Your task to perform on an android device: Toggle the flashlight Image 0: 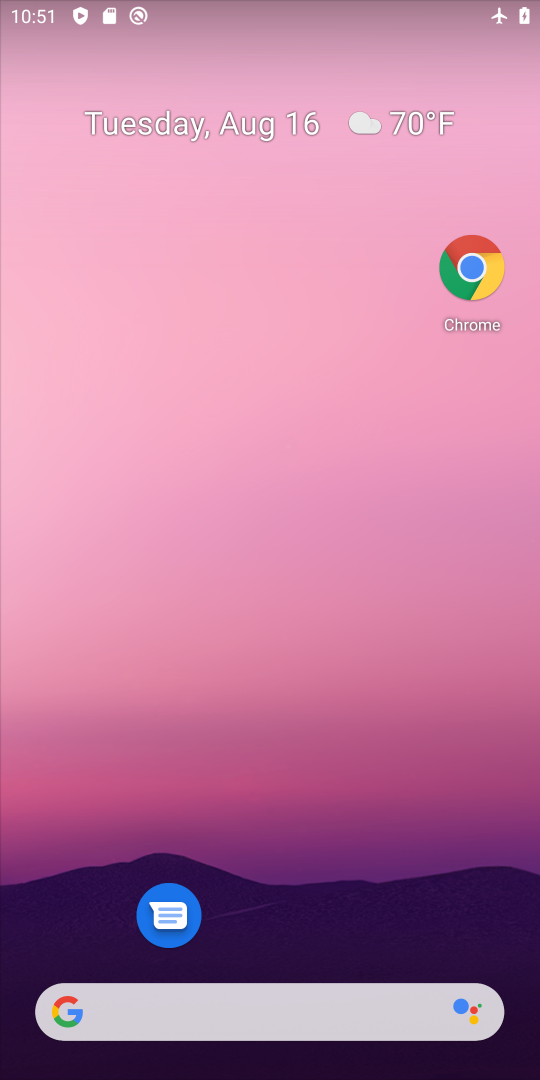
Step 0: drag from (212, 954) to (537, 641)
Your task to perform on an android device: Toggle the flashlight Image 1: 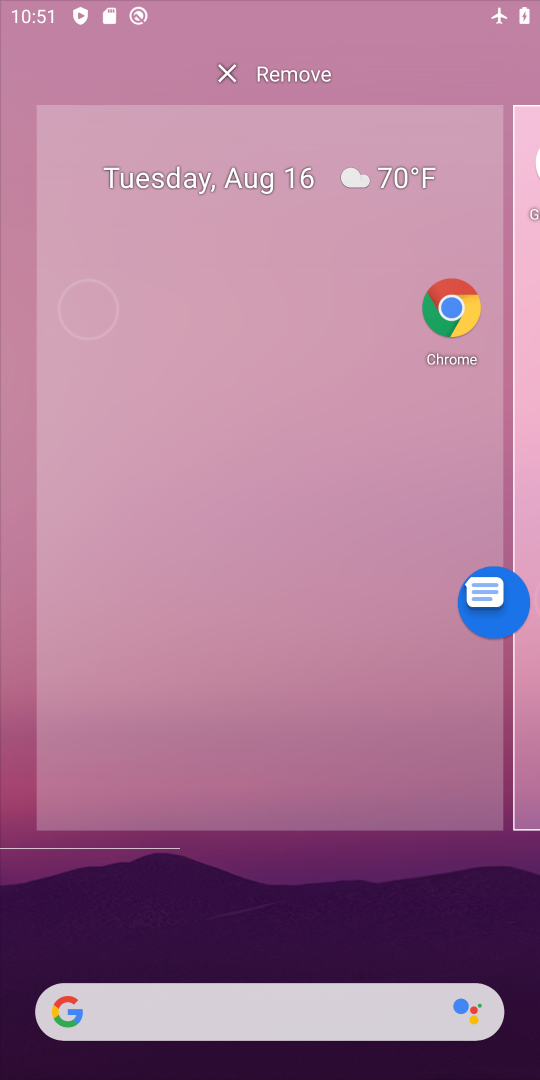
Step 1: click (312, 611)
Your task to perform on an android device: Toggle the flashlight Image 2: 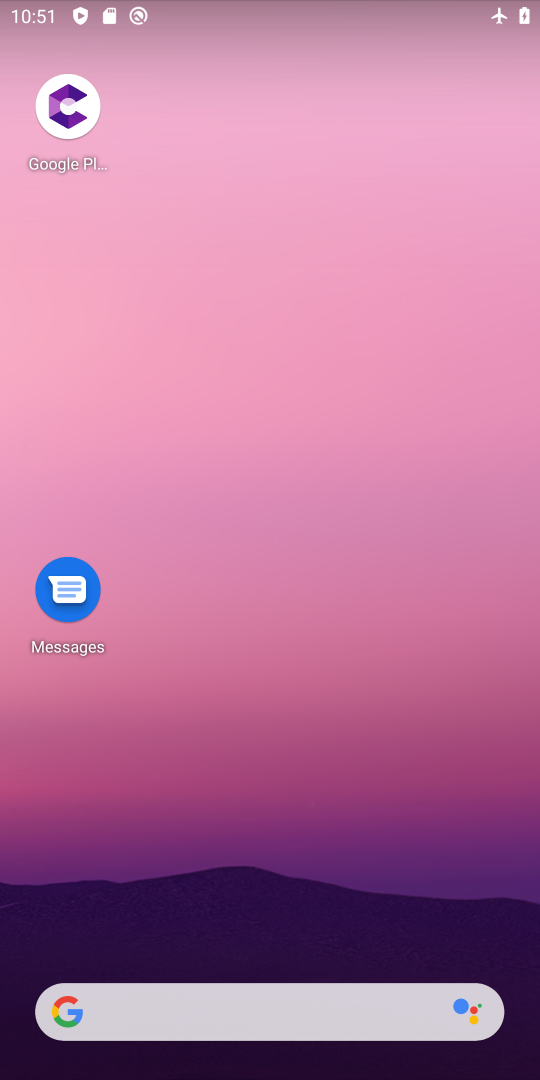
Step 2: drag from (313, 13) to (218, 1028)
Your task to perform on an android device: Toggle the flashlight Image 3: 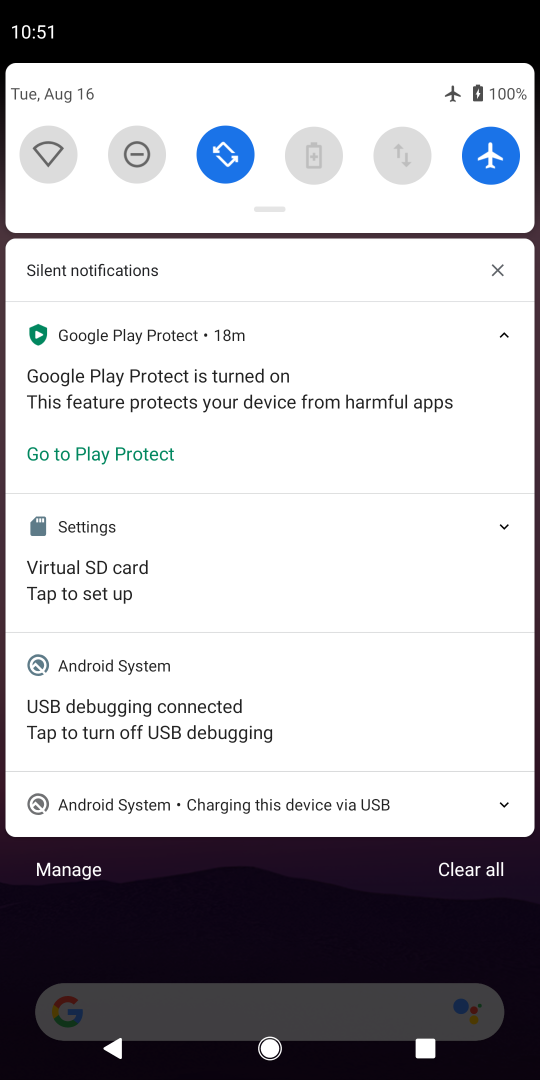
Step 3: drag from (333, 207) to (327, 921)
Your task to perform on an android device: Toggle the flashlight Image 4: 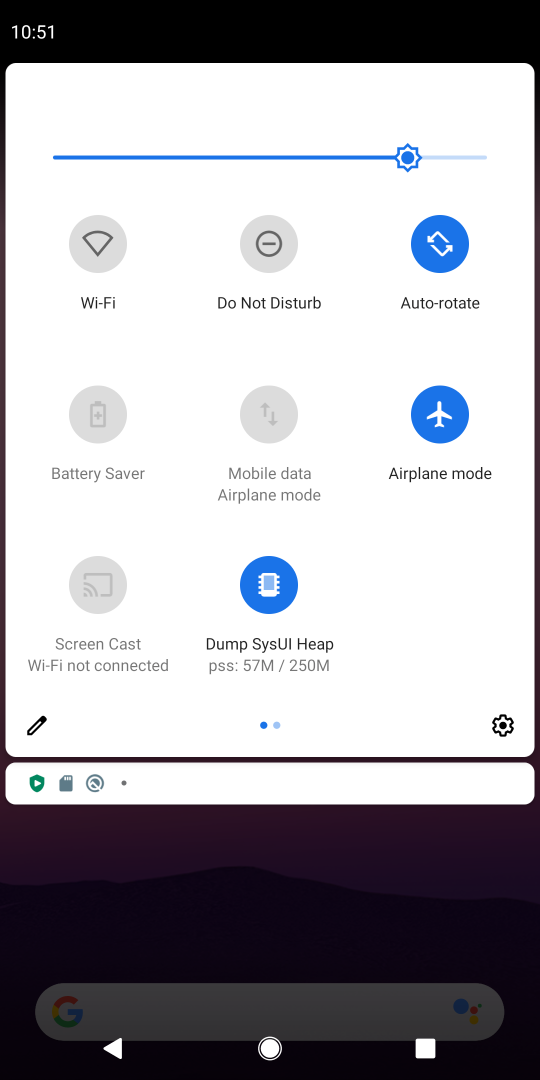
Step 4: drag from (152, 531) to (65, 390)
Your task to perform on an android device: Toggle the flashlight Image 5: 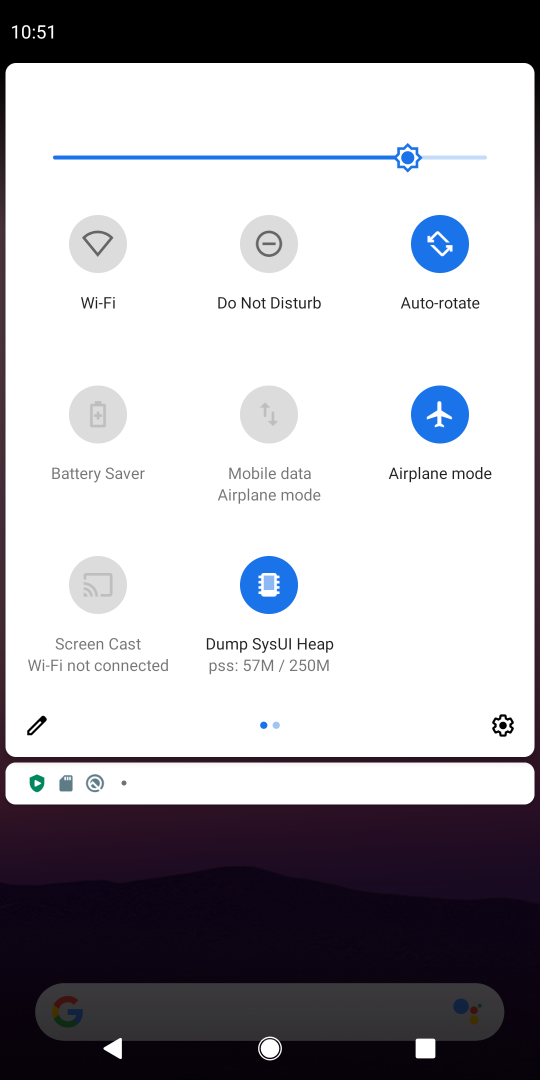
Step 5: click (278, 904)
Your task to perform on an android device: Toggle the flashlight Image 6: 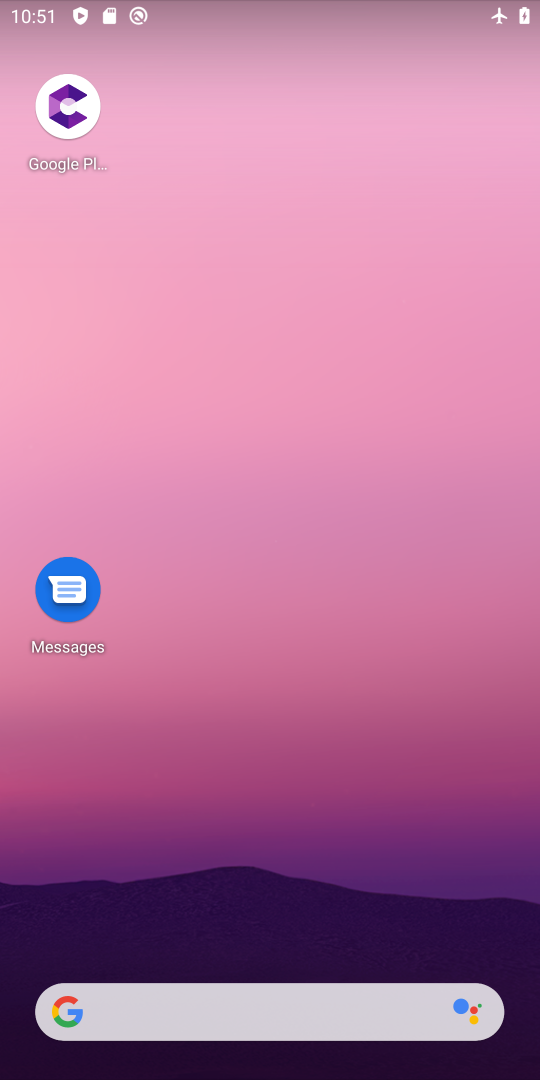
Step 6: drag from (278, 904) to (374, 5)
Your task to perform on an android device: Toggle the flashlight Image 7: 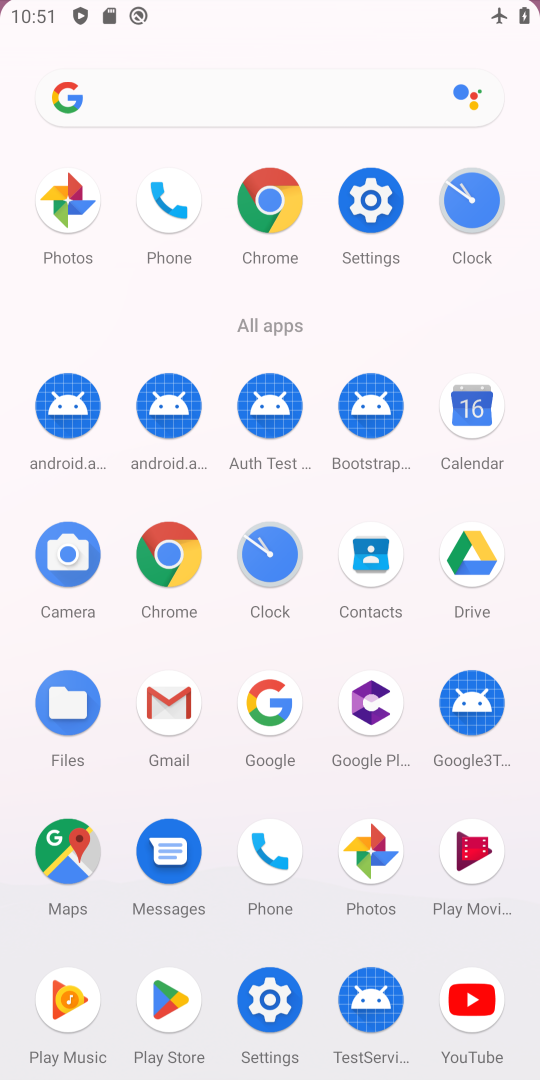
Step 7: click (395, 256)
Your task to perform on an android device: Toggle the flashlight Image 8: 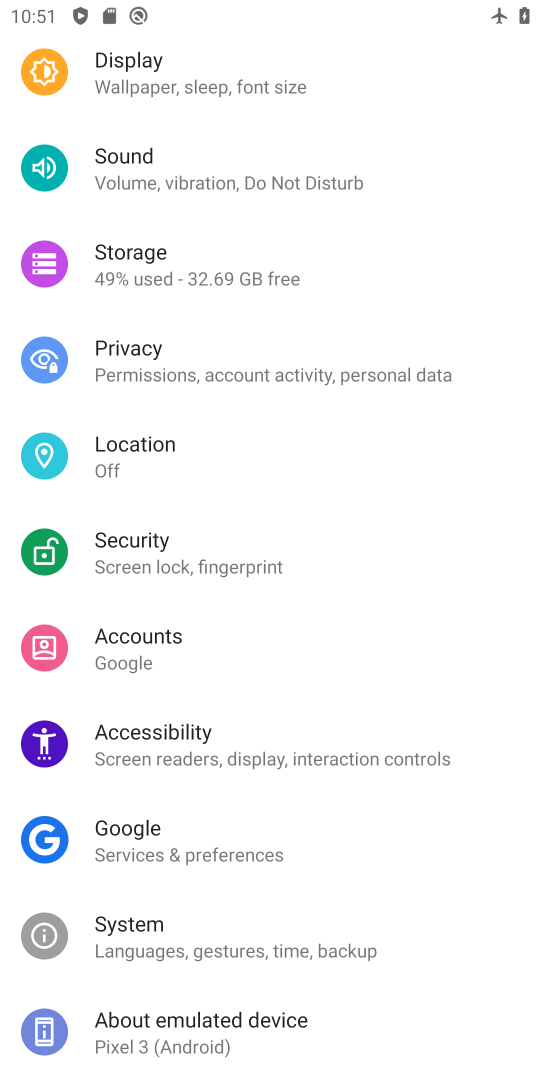
Step 8: task complete